Your task to perform on an android device: turn off notifications in google photos Image 0: 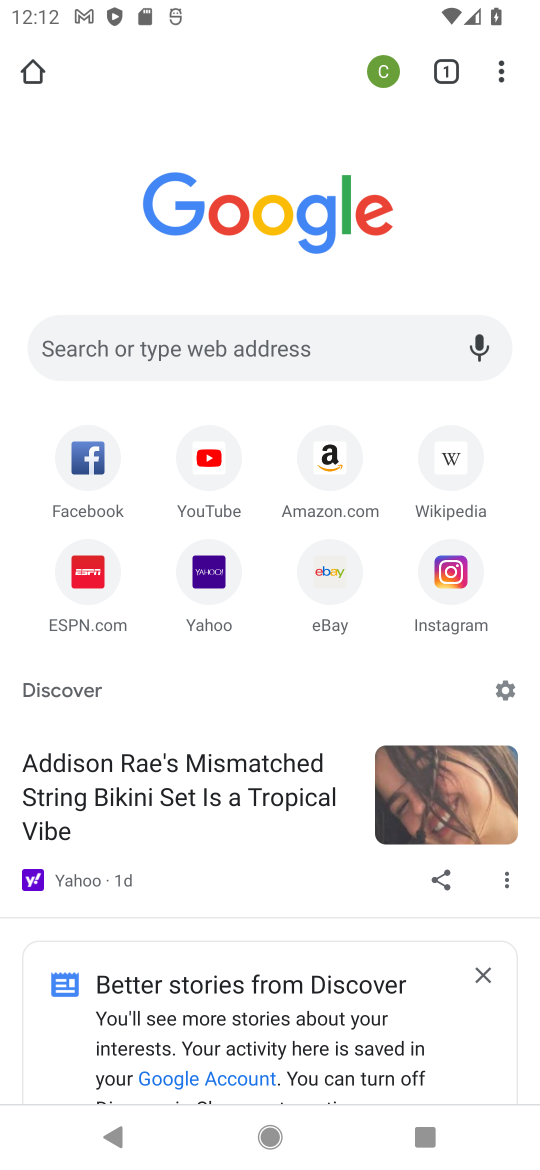
Step 0: press home button
Your task to perform on an android device: turn off notifications in google photos Image 1: 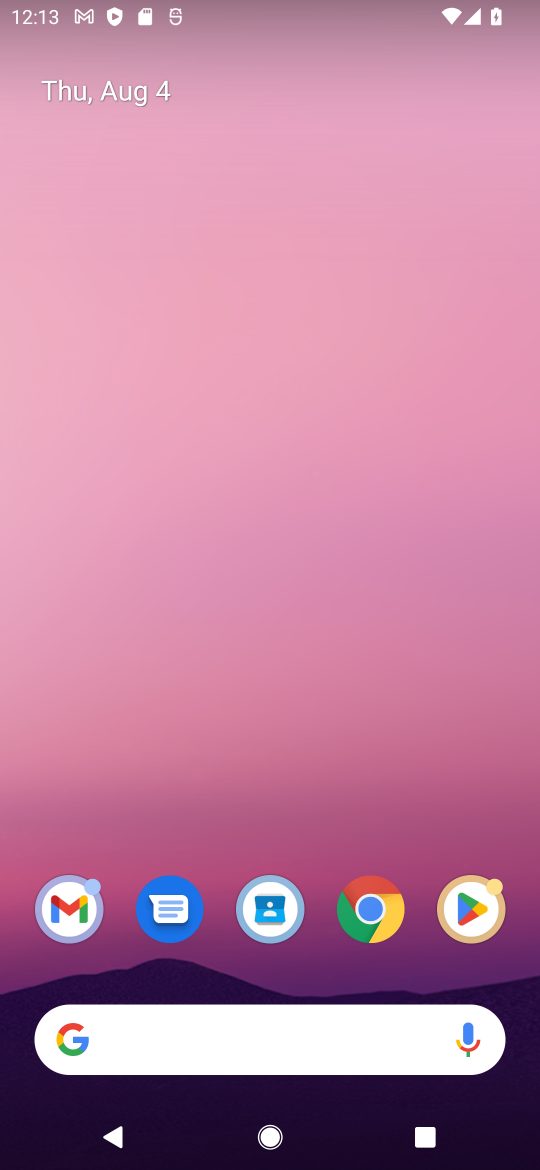
Step 1: drag from (197, 890) to (48, 54)
Your task to perform on an android device: turn off notifications in google photos Image 2: 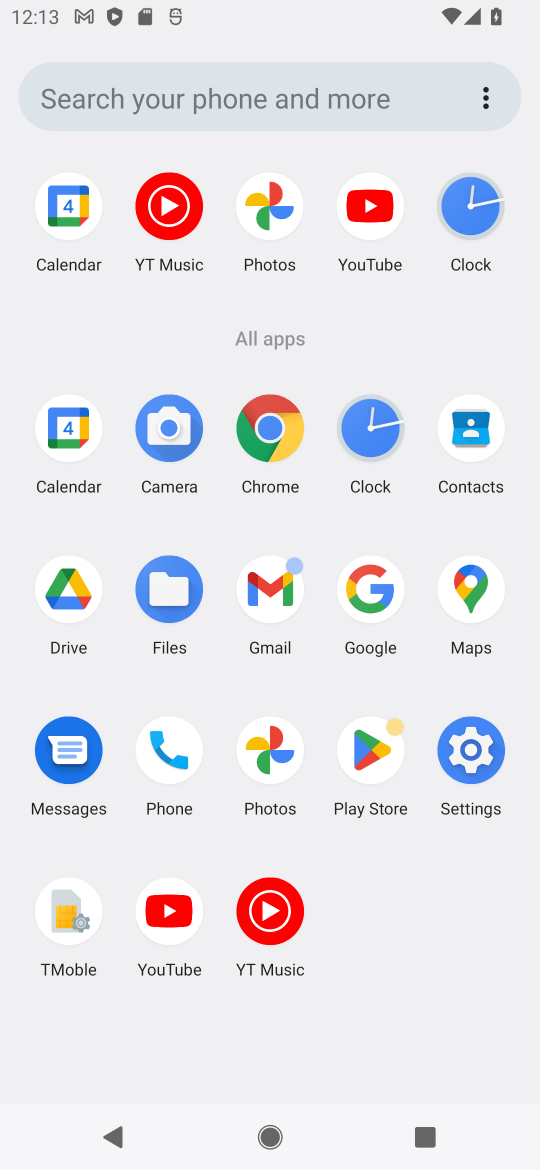
Step 2: click (247, 761)
Your task to perform on an android device: turn off notifications in google photos Image 3: 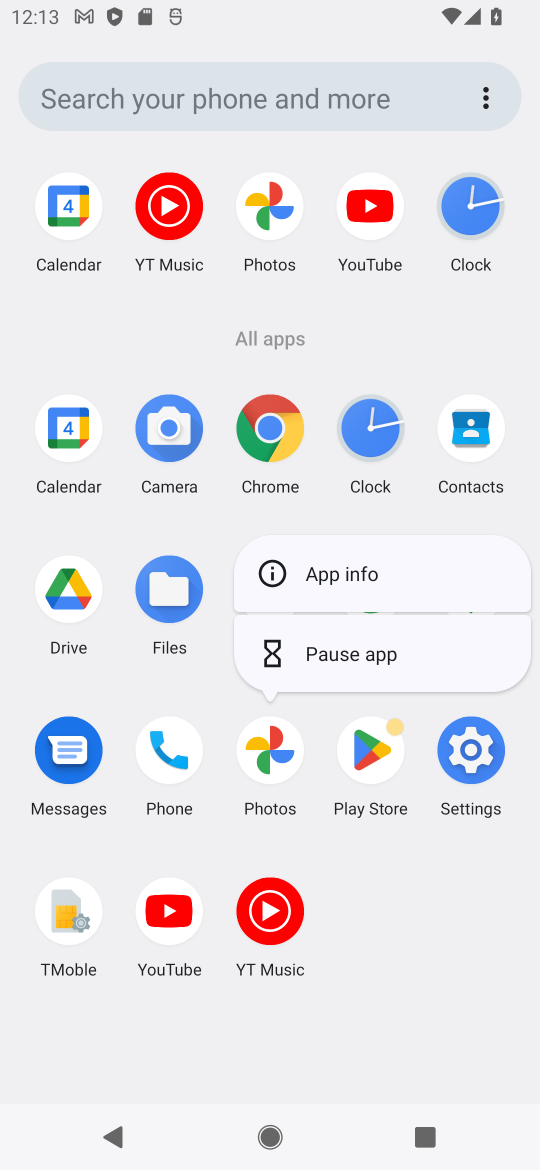
Step 3: click (372, 571)
Your task to perform on an android device: turn off notifications in google photos Image 4: 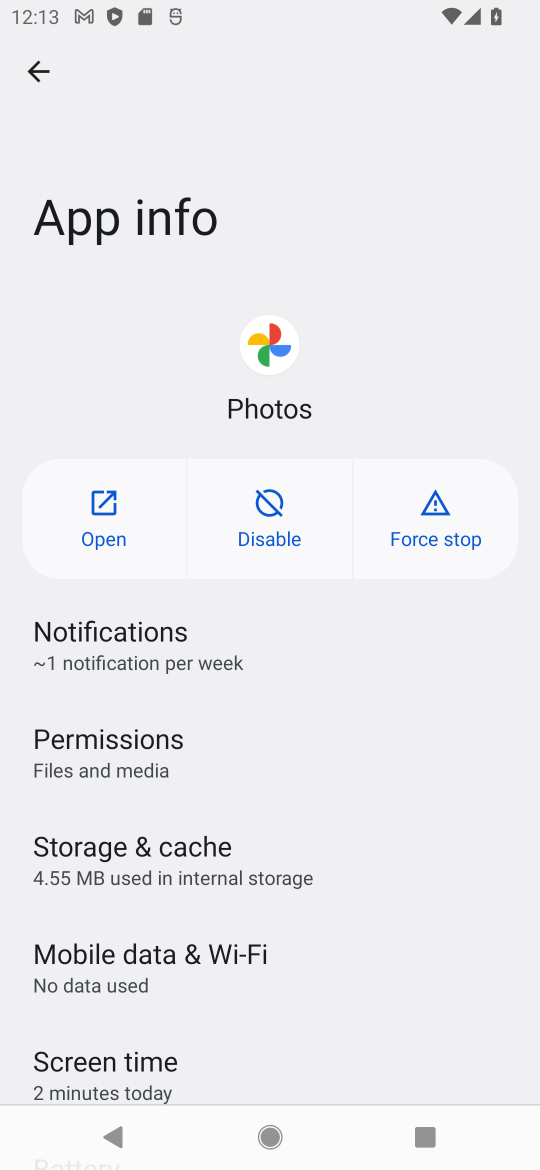
Step 4: click (337, 665)
Your task to perform on an android device: turn off notifications in google photos Image 5: 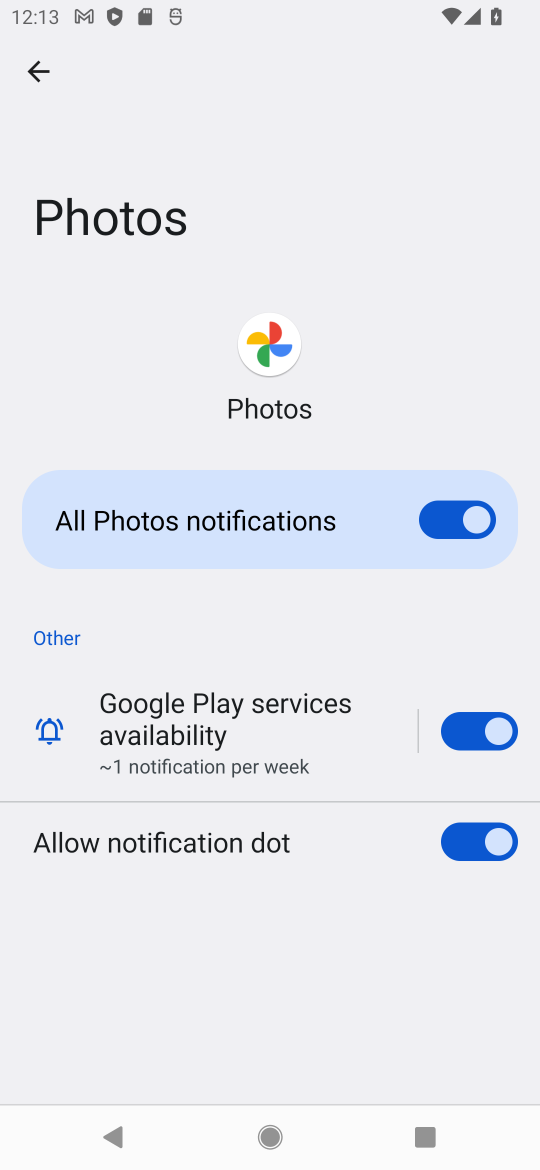
Step 5: click (446, 539)
Your task to perform on an android device: turn off notifications in google photos Image 6: 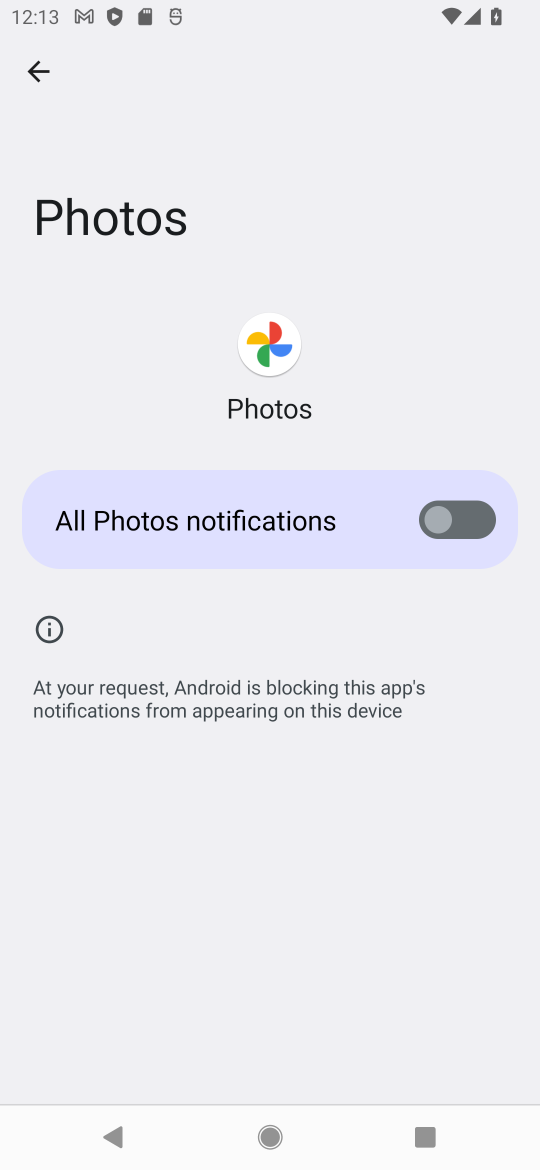
Step 6: task complete